Your task to perform on an android device: open a new tab in the chrome app Image 0: 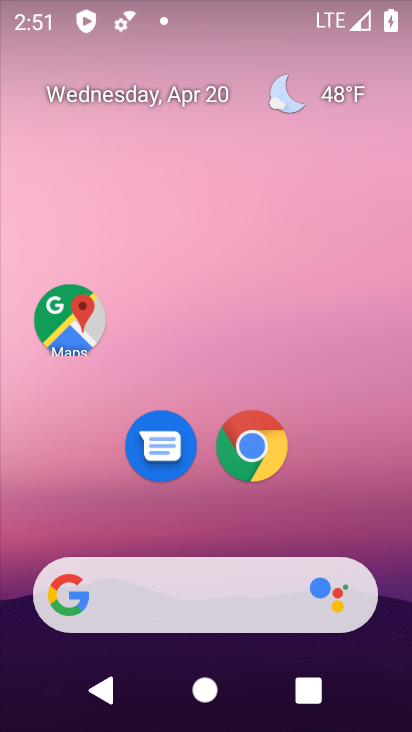
Step 0: click (261, 456)
Your task to perform on an android device: open a new tab in the chrome app Image 1: 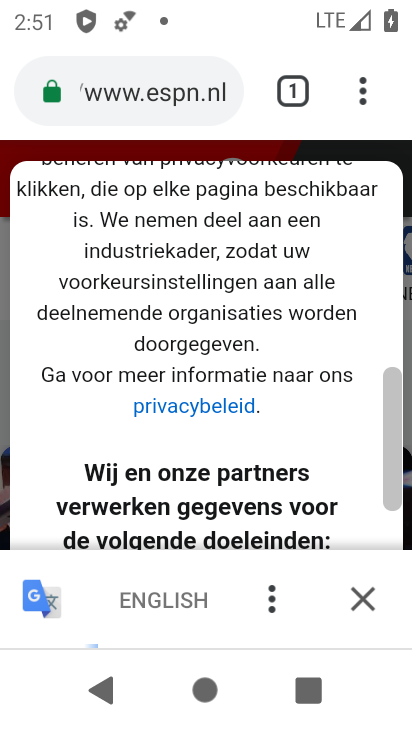
Step 1: click (361, 98)
Your task to perform on an android device: open a new tab in the chrome app Image 2: 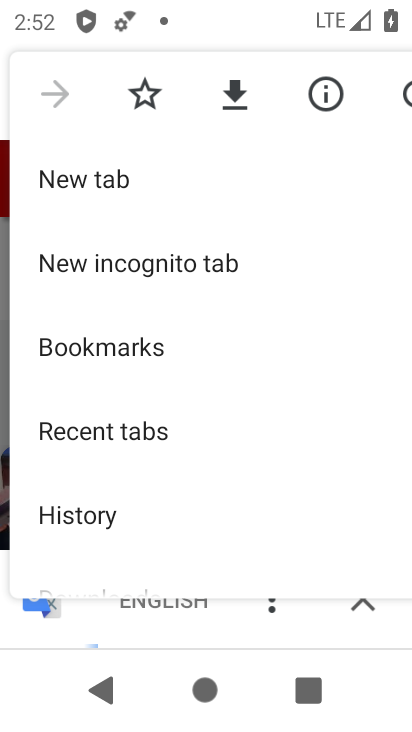
Step 2: click (110, 193)
Your task to perform on an android device: open a new tab in the chrome app Image 3: 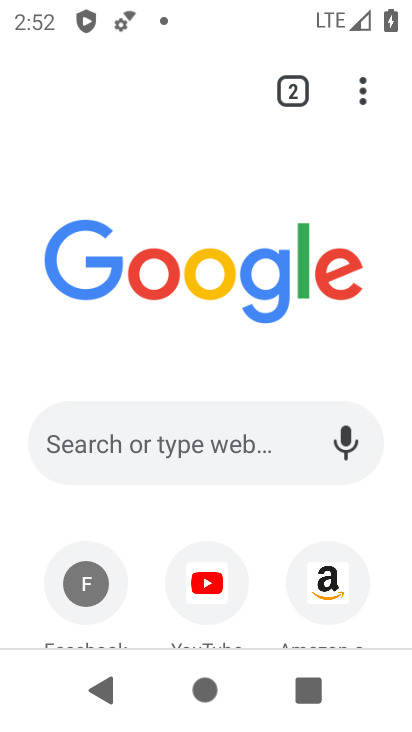
Step 3: task complete